Your task to perform on an android device: visit the assistant section in the google photos Image 0: 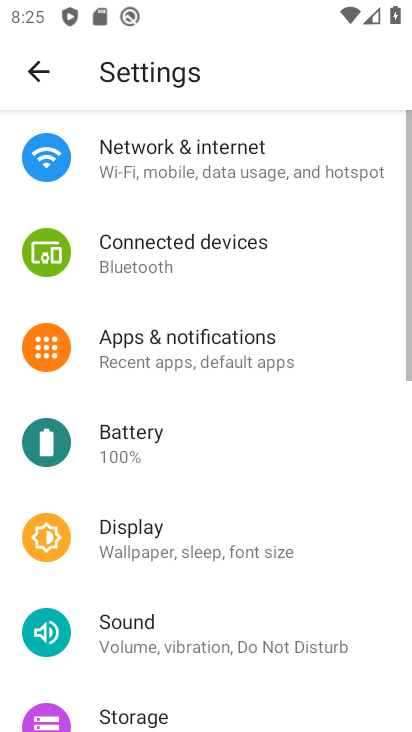
Step 0: press home button
Your task to perform on an android device: visit the assistant section in the google photos Image 1: 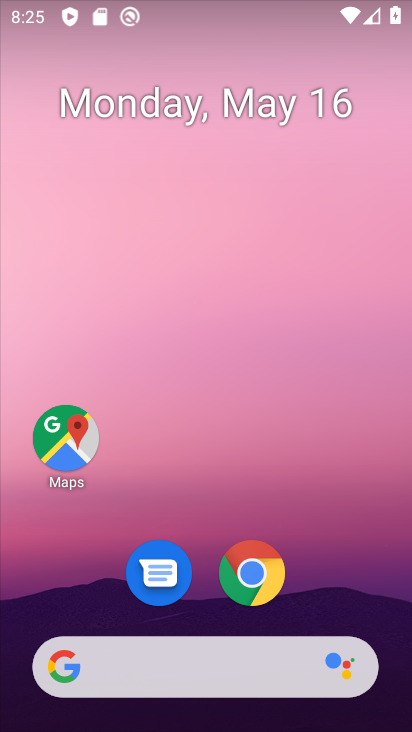
Step 1: drag from (63, 620) to (254, 172)
Your task to perform on an android device: visit the assistant section in the google photos Image 2: 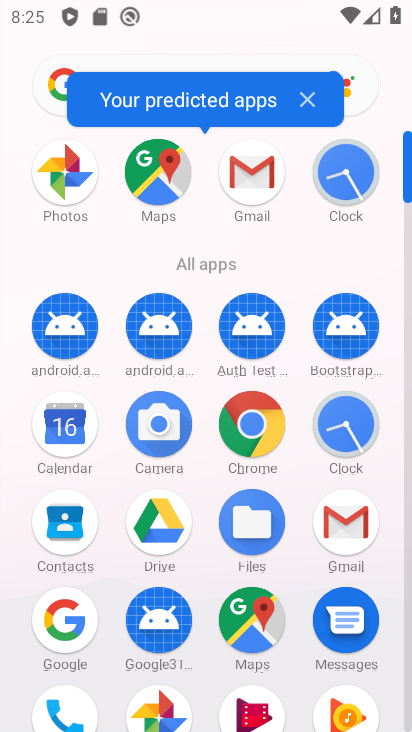
Step 2: click (154, 714)
Your task to perform on an android device: visit the assistant section in the google photos Image 3: 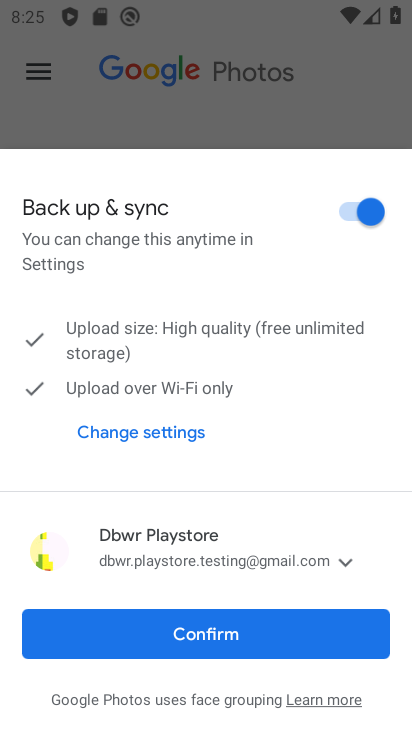
Step 3: click (191, 651)
Your task to perform on an android device: visit the assistant section in the google photos Image 4: 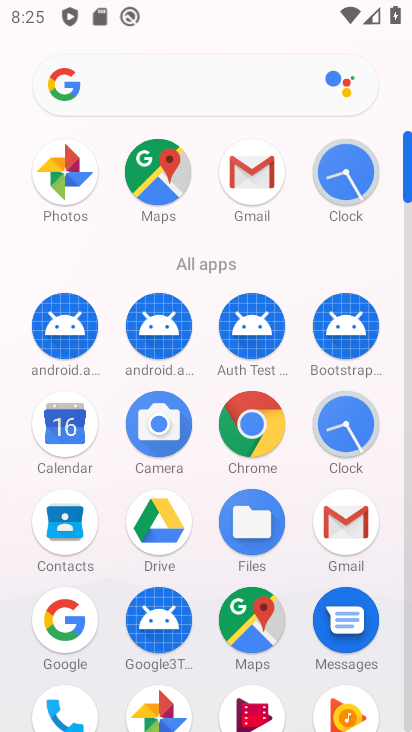
Step 4: click (172, 690)
Your task to perform on an android device: visit the assistant section in the google photos Image 5: 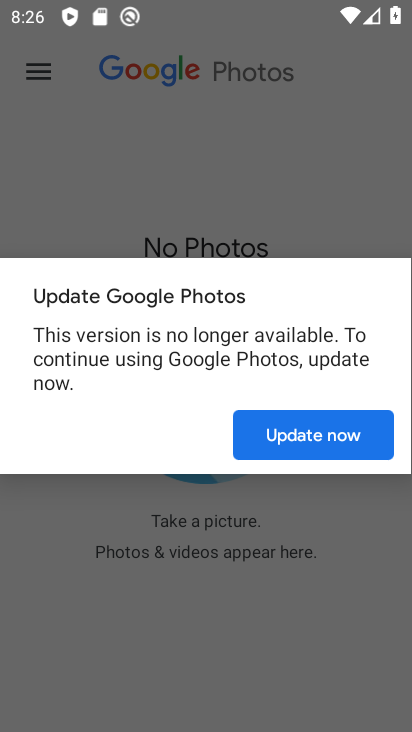
Step 5: click (328, 431)
Your task to perform on an android device: visit the assistant section in the google photos Image 6: 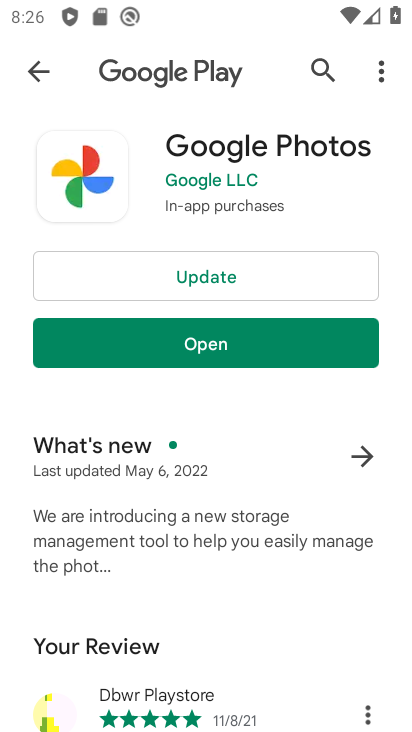
Step 6: click (239, 283)
Your task to perform on an android device: visit the assistant section in the google photos Image 7: 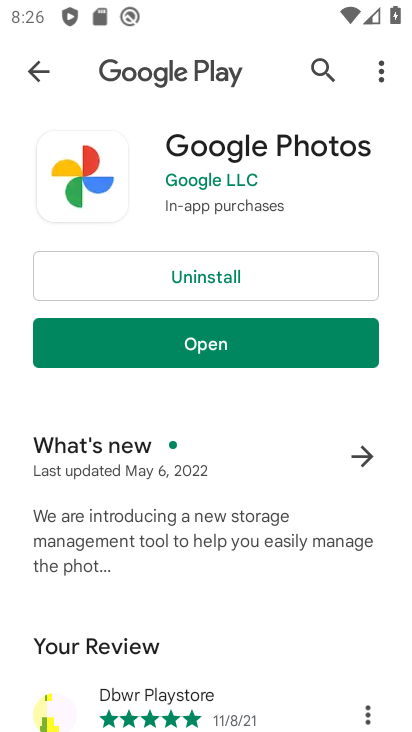
Step 7: click (234, 359)
Your task to perform on an android device: visit the assistant section in the google photos Image 8: 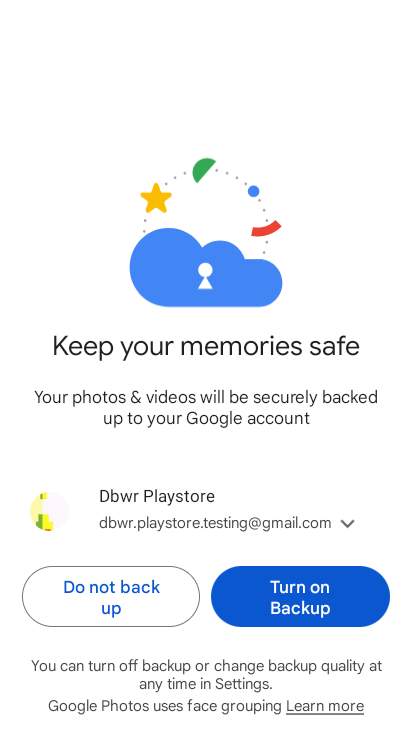
Step 8: drag from (295, 612) to (178, 667)
Your task to perform on an android device: visit the assistant section in the google photos Image 9: 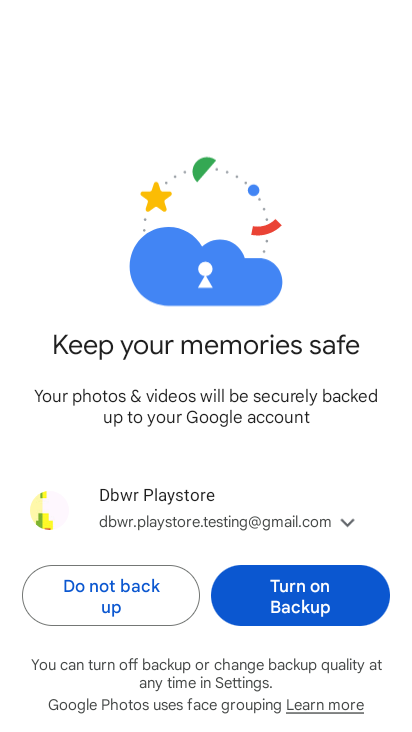
Step 9: click (271, 586)
Your task to perform on an android device: visit the assistant section in the google photos Image 10: 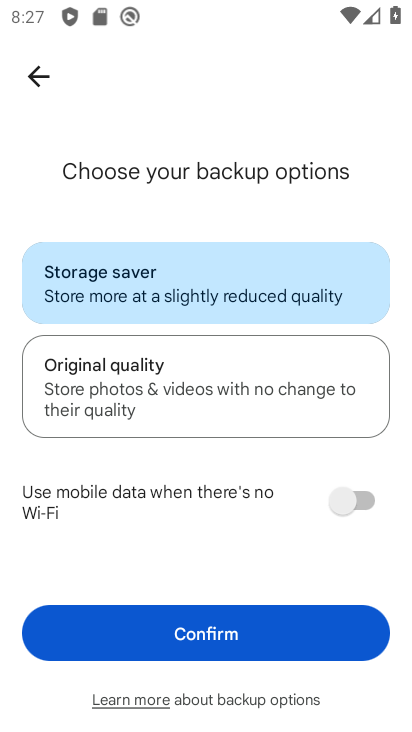
Step 10: click (218, 642)
Your task to perform on an android device: visit the assistant section in the google photos Image 11: 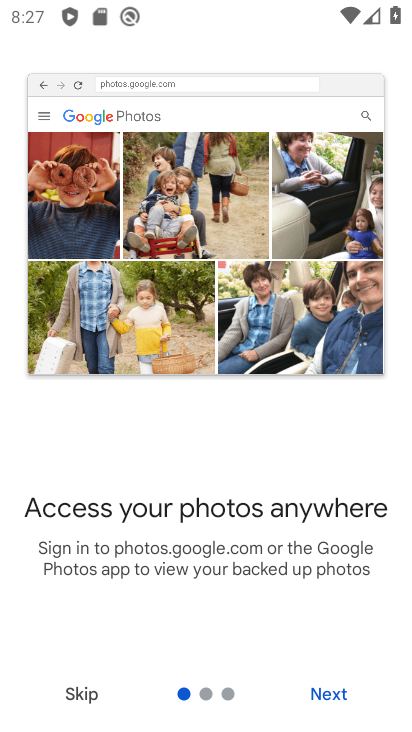
Step 11: click (344, 677)
Your task to perform on an android device: visit the assistant section in the google photos Image 12: 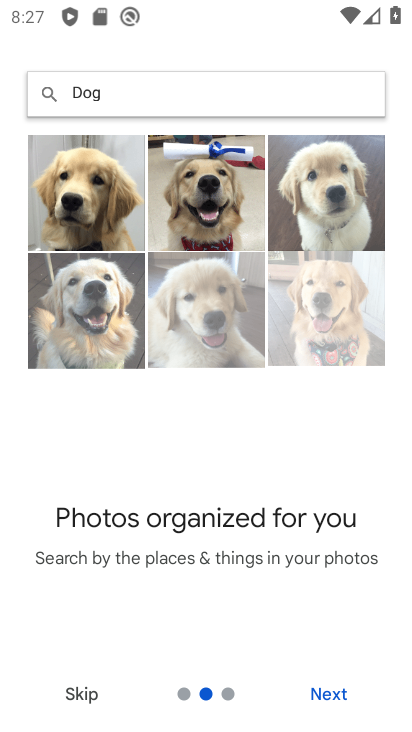
Step 12: click (336, 698)
Your task to perform on an android device: visit the assistant section in the google photos Image 13: 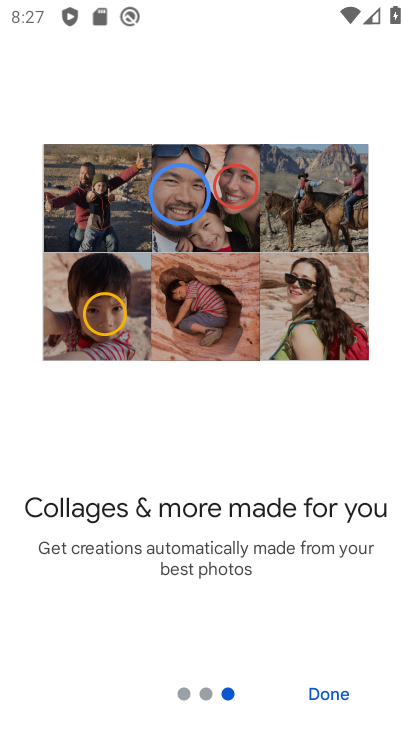
Step 13: click (336, 698)
Your task to perform on an android device: visit the assistant section in the google photos Image 14: 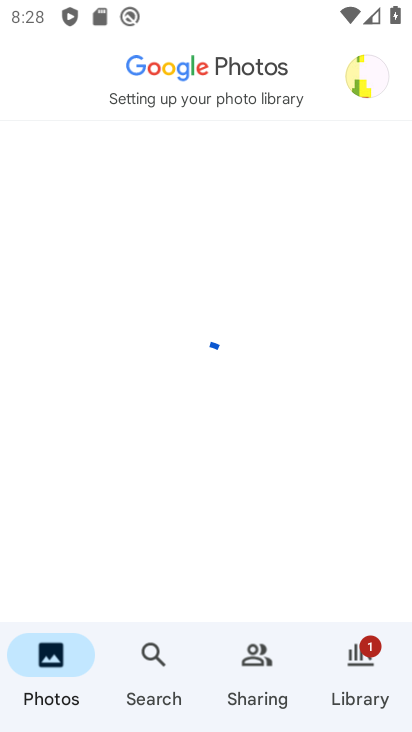
Step 14: drag from (368, 85) to (338, 485)
Your task to perform on an android device: visit the assistant section in the google photos Image 15: 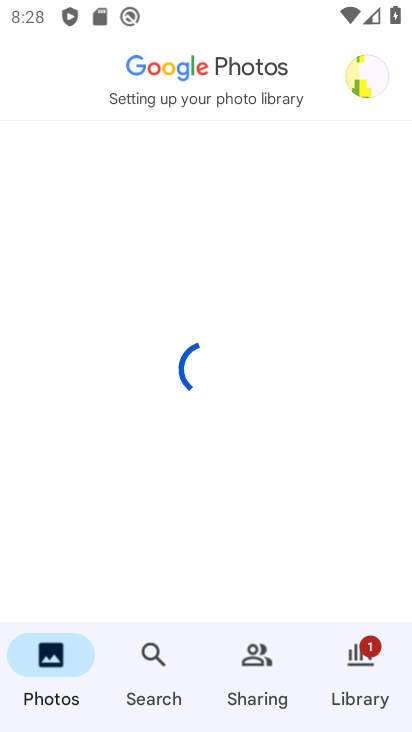
Step 15: click (351, 685)
Your task to perform on an android device: visit the assistant section in the google photos Image 16: 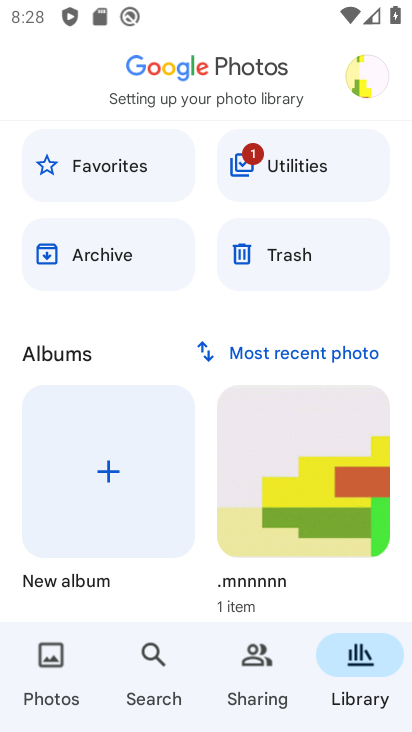
Step 16: task complete